Your task to perform on an android device: Open maps Image 0: 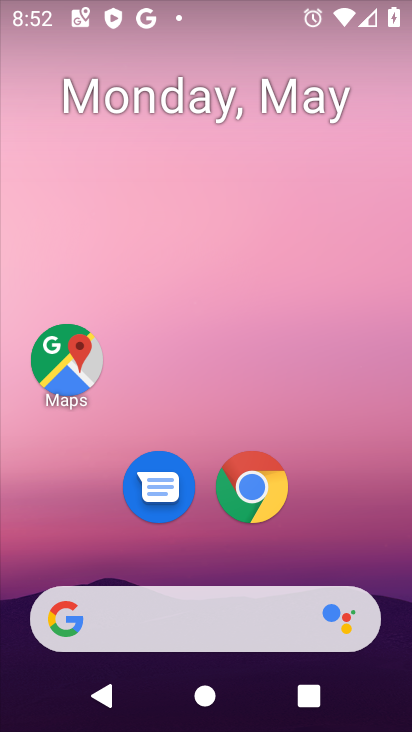
Step 0: click (56, 373)
Your task to perform on an android device: Open maps Image 1: 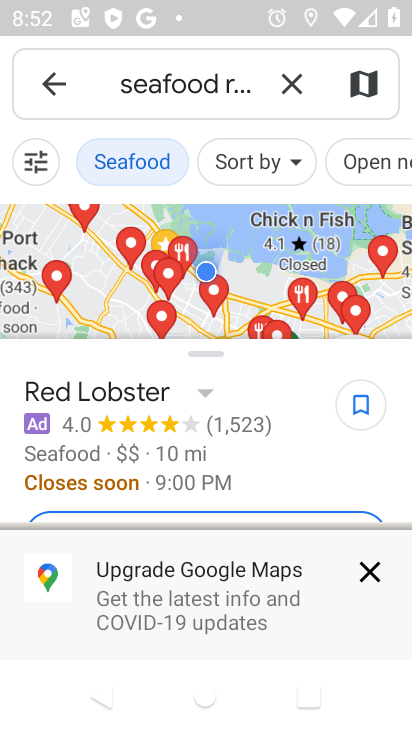
Step 1: task complete